Your task to perform on an android device: Go to ESPN.com Image 0: 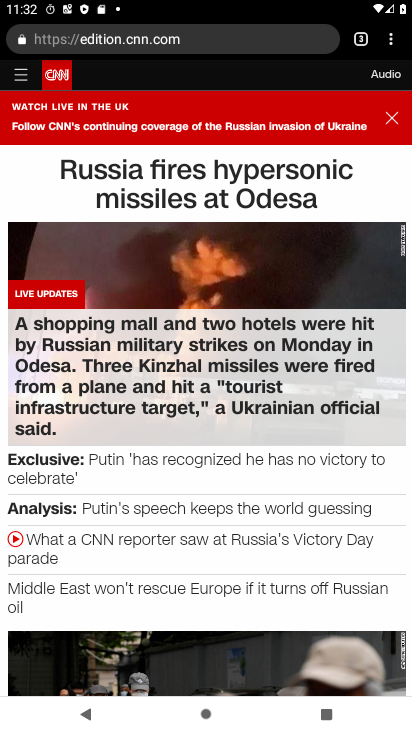
Step 0: press home button
Your task to perform on an android device: Go to ESPN.com Image 1: 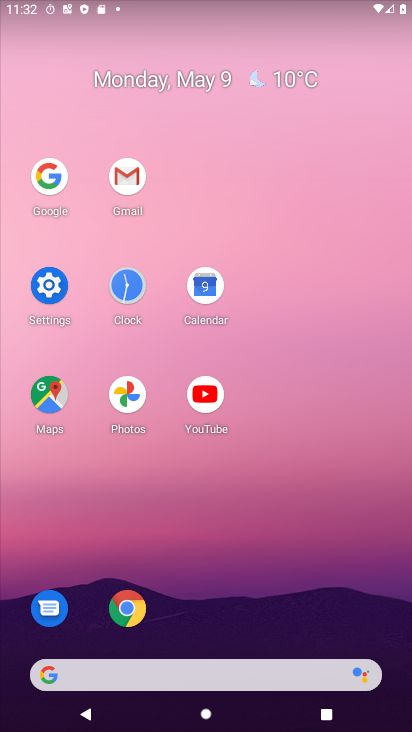
Step 1: click (125, 616)
Your task to perform on an android device: Go to ESPN.com Image 2: 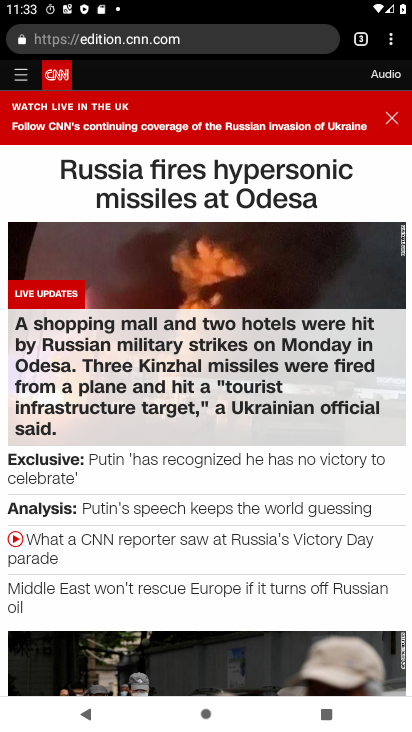
Step 2: click (365, 47)
Your task to perform on an android device: Go to ESPN.com Image 3: 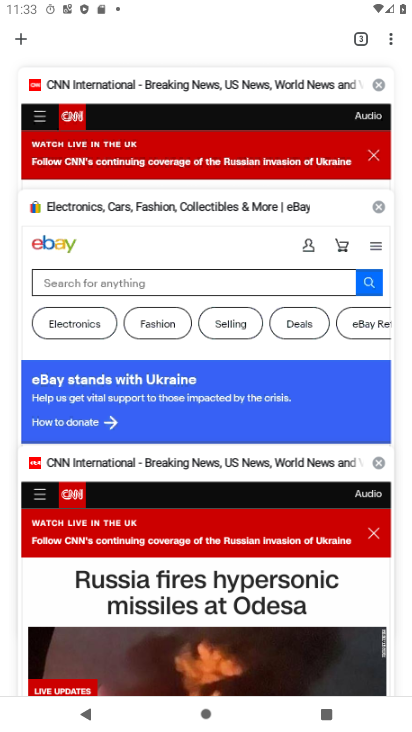
Step 3: click (16, 39)
Your task to perform on an android device: Go to ESPN.com Image 4: 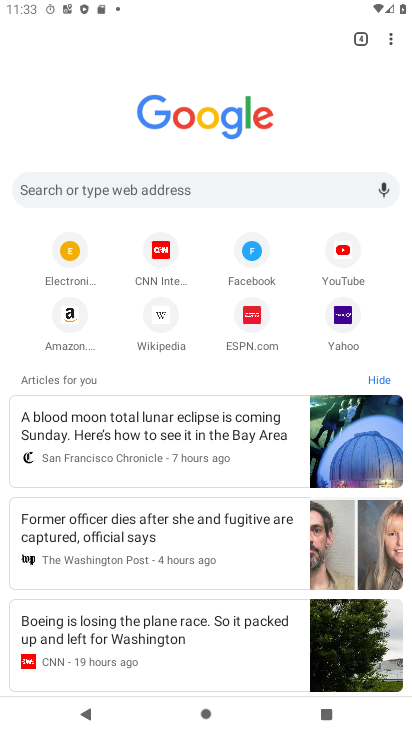
Step 4: click (243, 322)
Your task to perform on an android device: Go to ESPN.com Image 5: 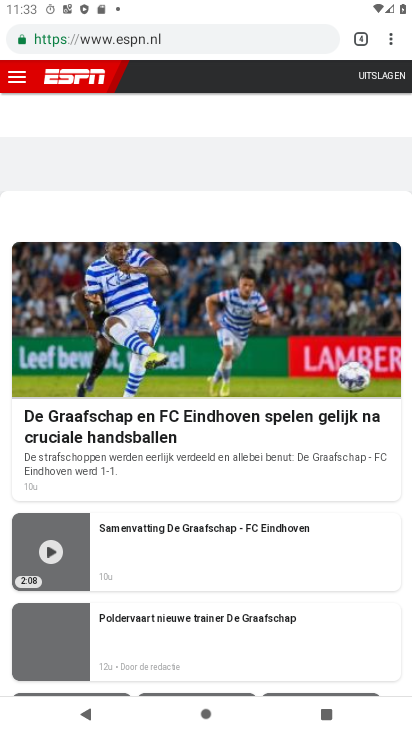
Step 5: task complete